Your task to perform on an android device: choose inbox layout in the gmail app Image 0: 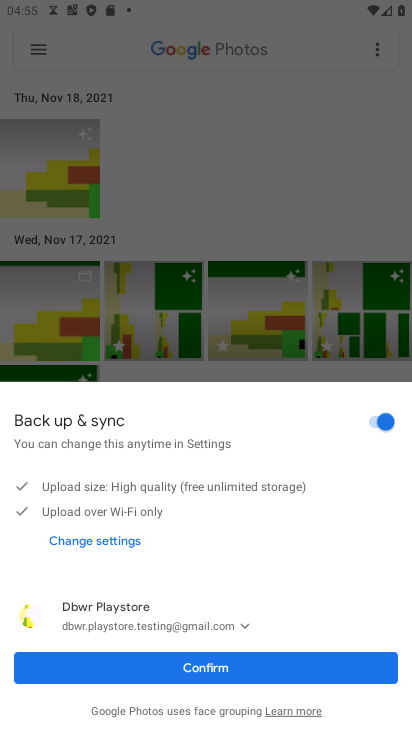
Step 0: press home button
Your task to perform on an android device: choose inbox layout in the gmail app Image 1: 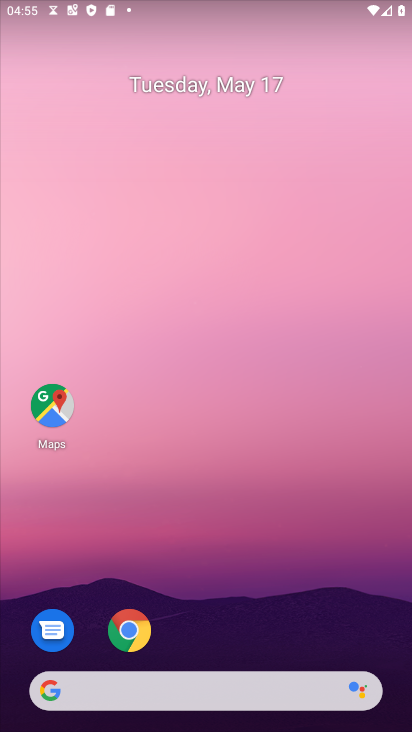
Step 1: drag from (227, 618) to (234, 62)
Your task to perform on an android device: choose inbox layout in the gmail app Image 2: 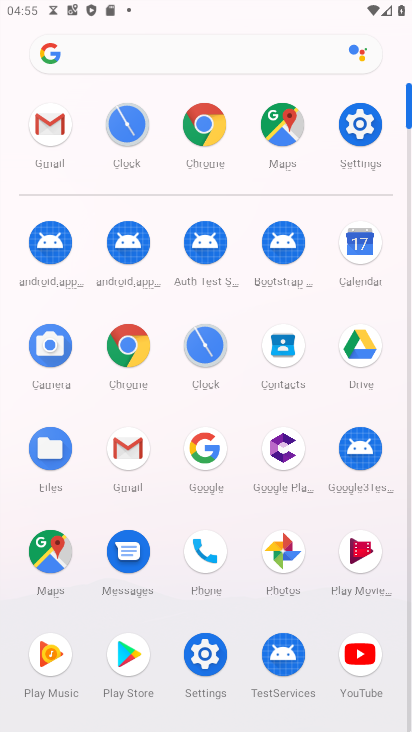
Step 2: click (135, 448)
Your task to perform on an android device: choose inbox layout in the gmail app Image 3: 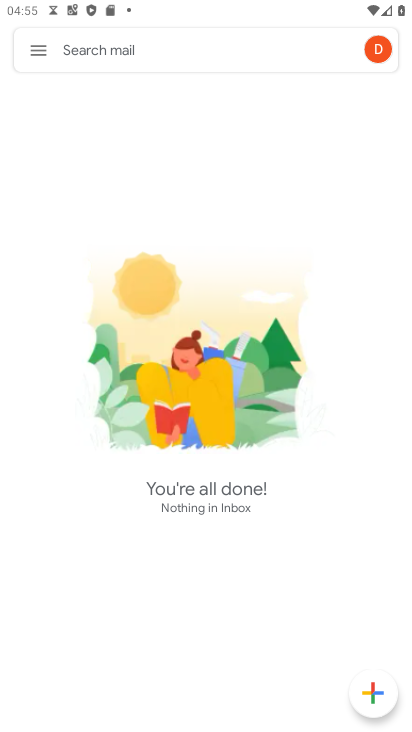
Step 3: click (38, 48)
Your task to perform on an android device: choose inbox layout in the gmail app Image 4: 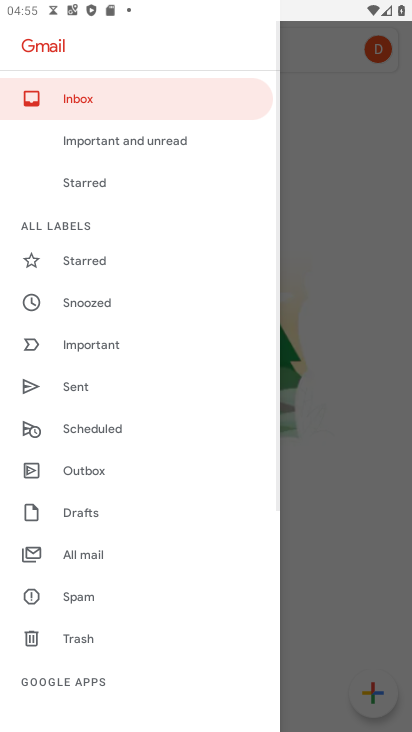
Step 4: drag from (169, 614) to (179, 249)
Your task to perform on an android device: choose inbox layout in the gmail app Image 5: 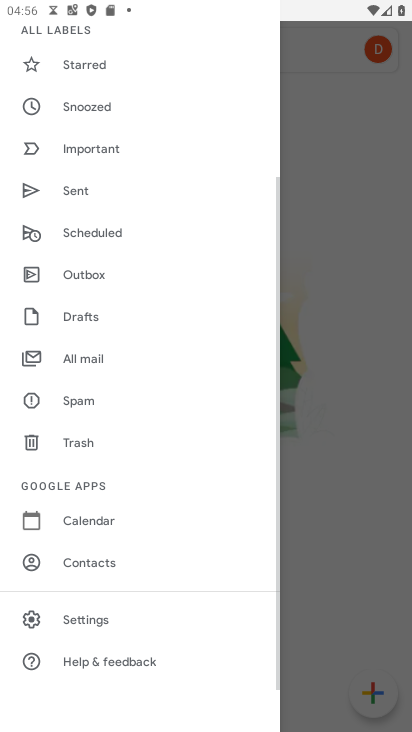
Step 5: click (96, 613)
Your task to perform on an android device: choose inbox layout in the gmail app Image 6: 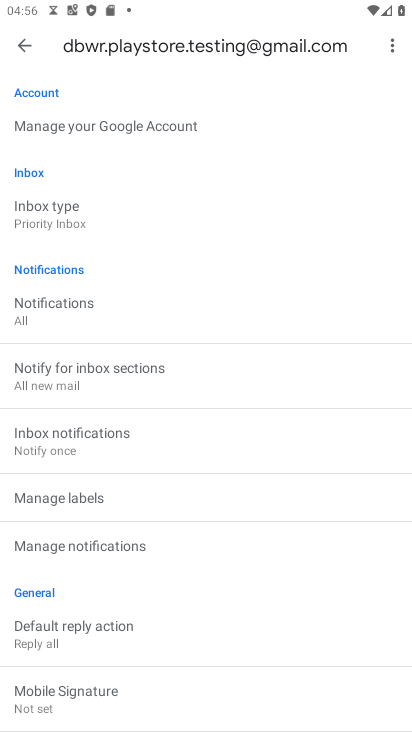
Step 6: click (59, 207)
Your task to perform on an android device: choose inbox layout in the gmail app Image 7: 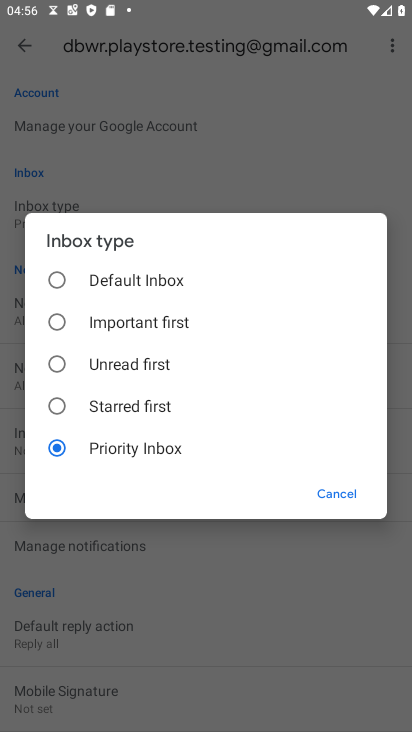
Step 7: click (112, 284)
Your task to perform on an android device: choose inbox layout in the gmail app Image 8: 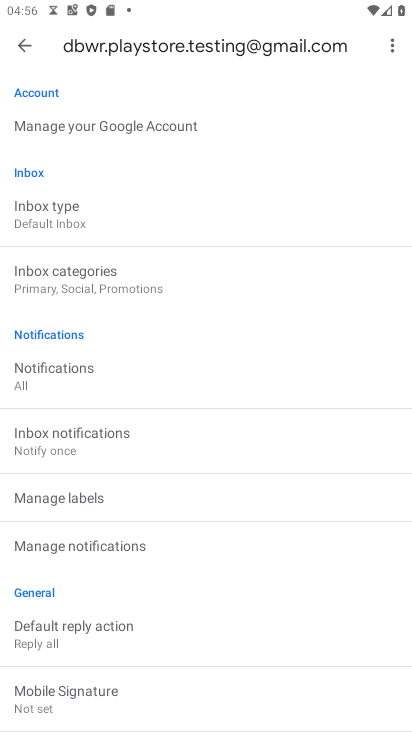
Step 8: task complete